Your task to perform on an android device: turn off priority inbox in the gmail app Image 0: 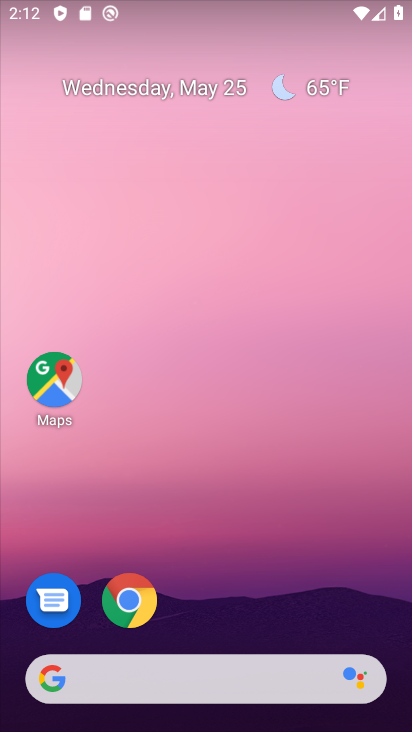
Step 0: drag from (237, 575) to (165, 136)
Your task to perform on an android device: turn off priority inbox in the gmail app Image 1: 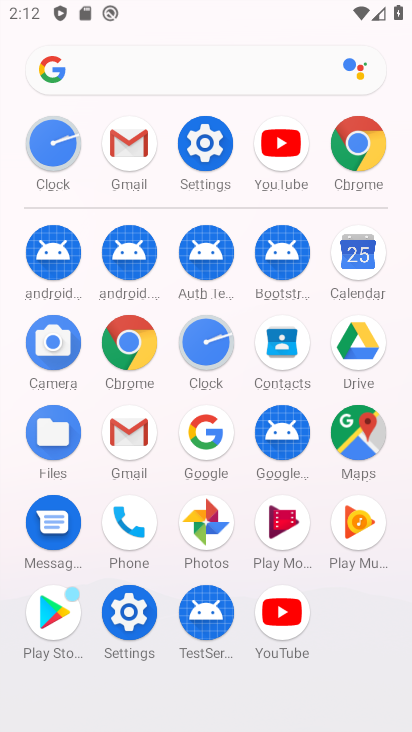
Step 1: click (141, 137)
Your task to perform on an android device: turn off priority inbox in the gmail app Image 2: 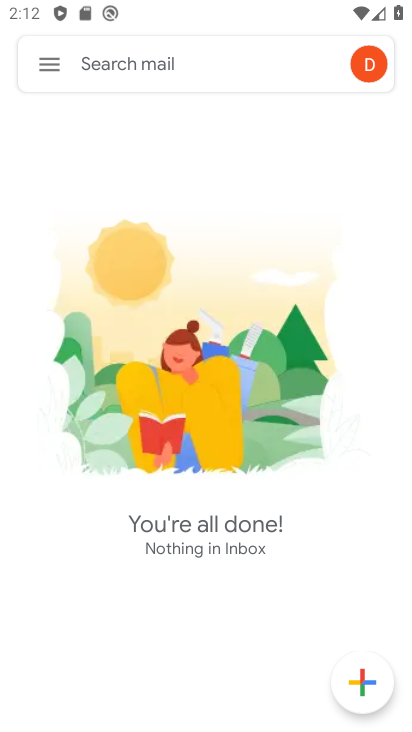
Step 2: click (41, 76)
Your task to perform on an android device: turn off priority inbox in the gmail app Image 3: 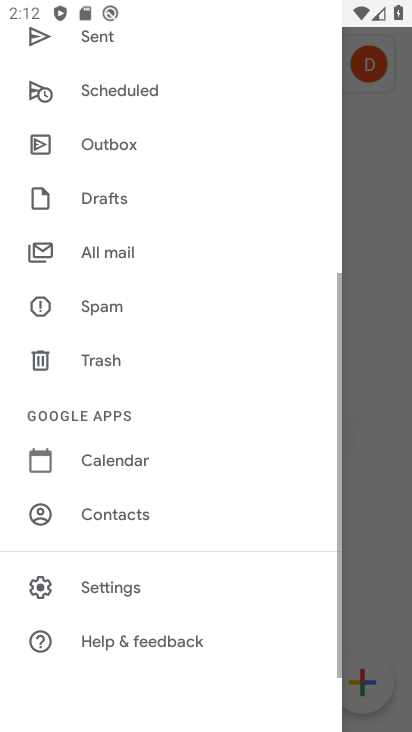
Step 3: drag from (106, 567) to (169, 120)
Your task to perform on an android device: turn off priority inbox in the gmail app Image 4: 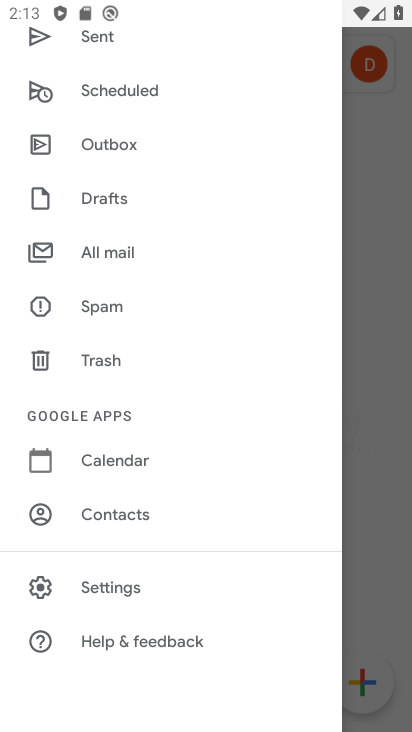
Step 4: click (121, 590)
Your task to perform on an android device: turn off priority inbox in the gmail app Image 5: 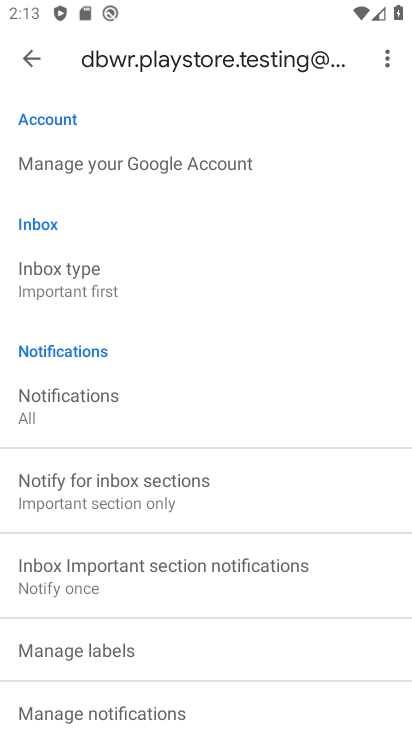
Step 5: drag from (173, 522) to (164, 128)
Your task to perform on an android device: turn off priority inbox in the gmail app Image 6: 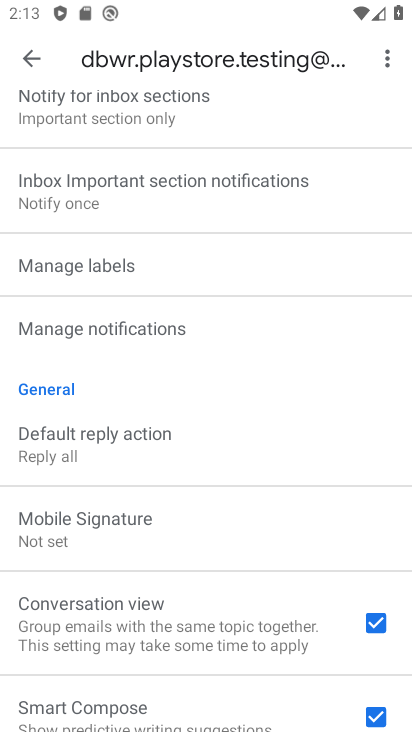
Step 6: drag from (175, 200) to (196, 706)
Your task to perform on an android device: turn off priority inbox in the gmail app Image 7: 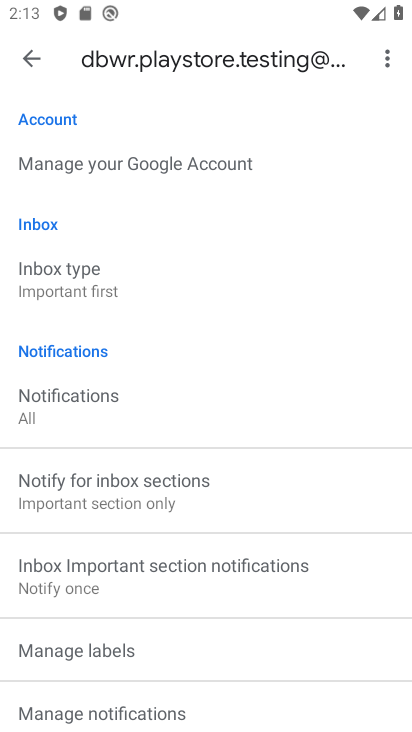
Step 7: drag from (91, 280) to (137, 612)
Your task to perform on an android device: turn off priority inbox in the gmail app Image 8: 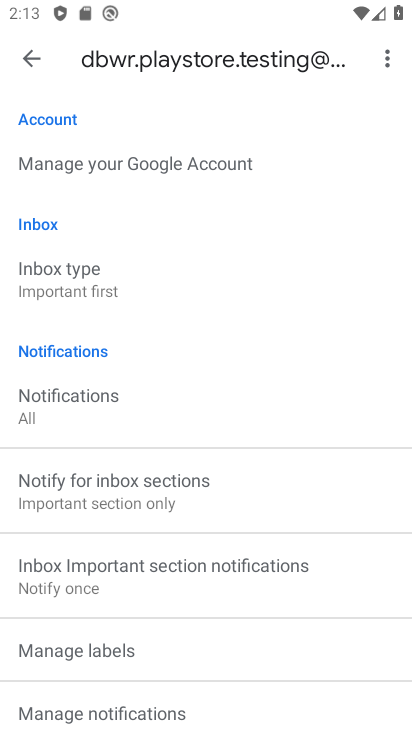
Step 8: drag from (140, 587) to (236, 115)
Your task to perform on an android device: turn off priority inbox in the gmail app Image 9: 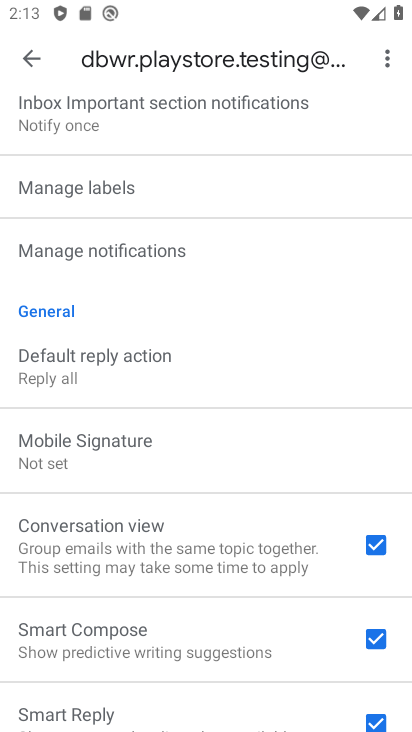
Step 9: drag from (211, 594) to (314, 123)
Your task to perform on an android device: turn off priority inbox in the gmail app Image 10: 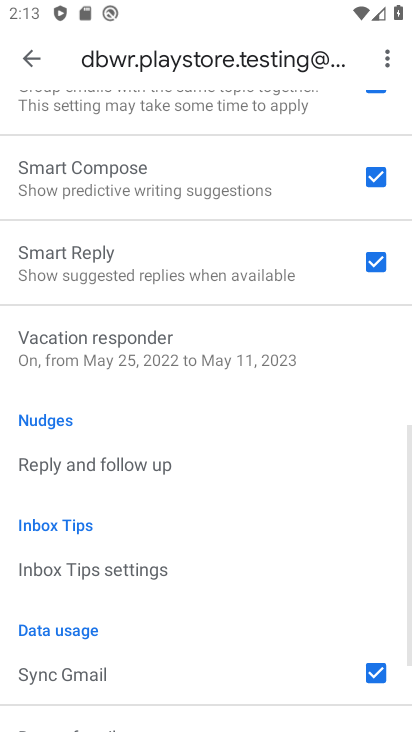
Step 10: drag from (290, 183) to (315, 711)
Your task to perform on an android device: turn off priority inbox in the gmail app Image 11: 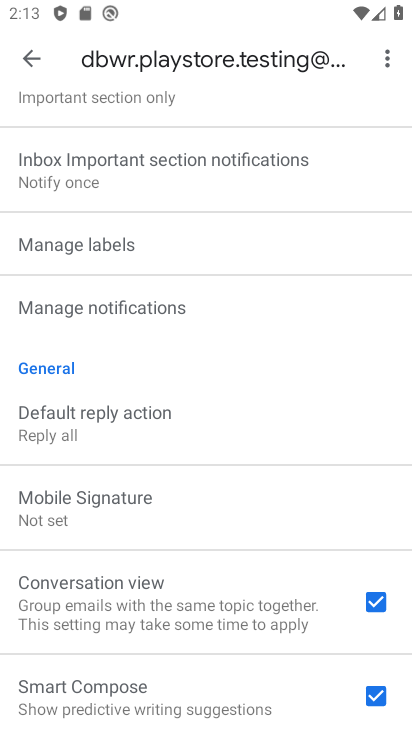
Step 11: drag from (185, 184) to (188, 645)
Your task to perform on an android device: turn off priority inbox in the gmail app Image 12: 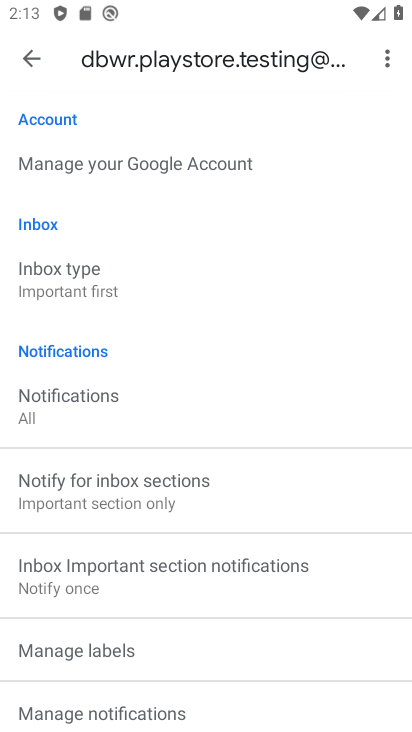
Step 12: click (85, 287)
Your task to perform on an android device: turn off priority inbox in the gmail app Image 13: 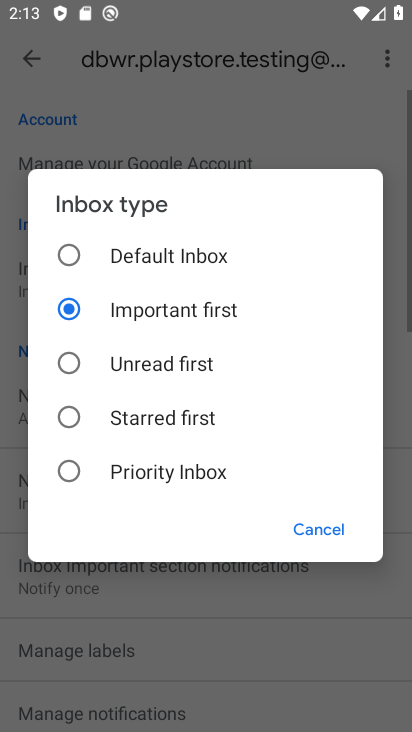
Step 13: task complete